Your task to perform on an android device: What's the weather? Image 0: 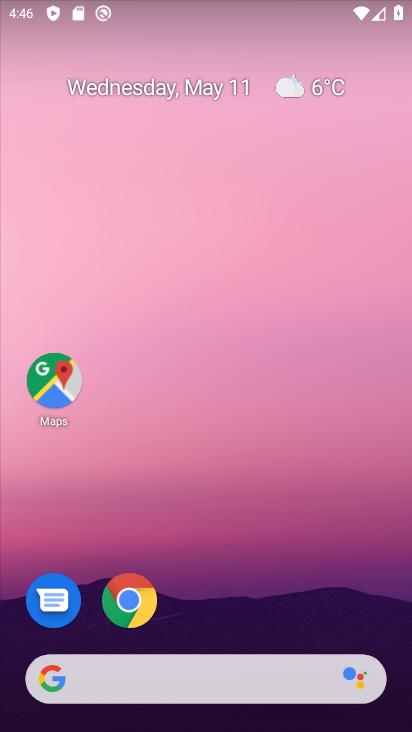
Step 0: click (333, 86)
Your task to perform on an android device: What's the weather? Image 1: 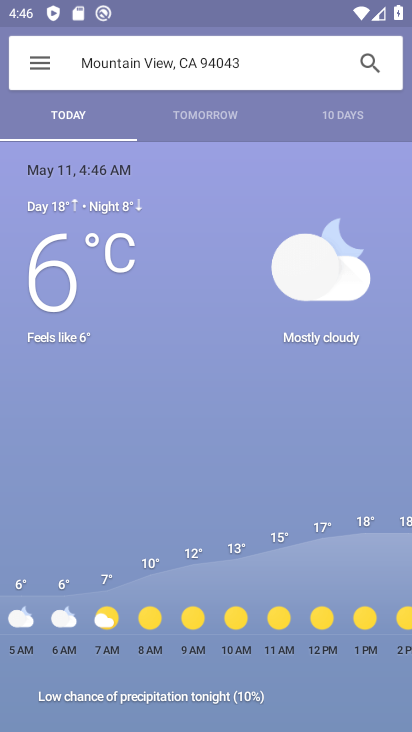
Step 1: task complete